Your task to perform on an android device: Do I have any events this weekend? Image 0: 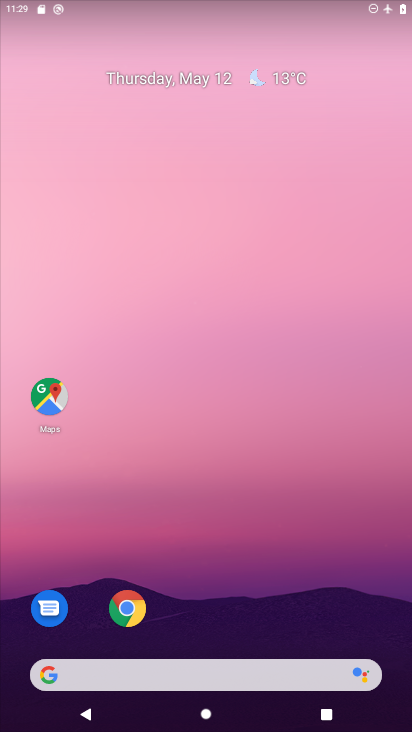
Step 0: drag from (241, 614) to (277, 56)
Your task to perform on an android device: Do I have any events this weekend? Image 1: 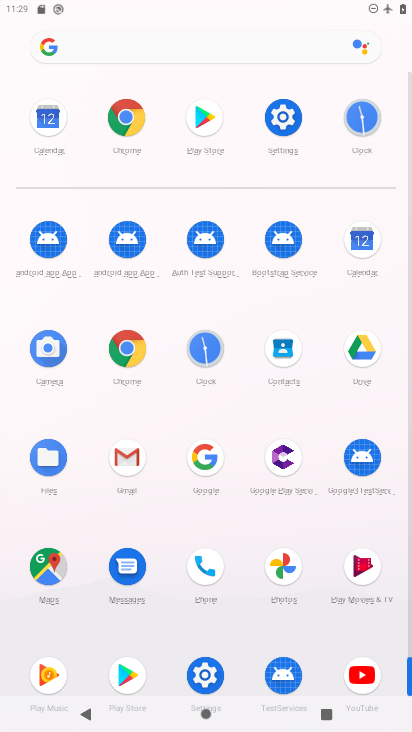
Step 1: click (363, 239)
Your task to perform on an android device: Do I have any events this weekend? Image 2: 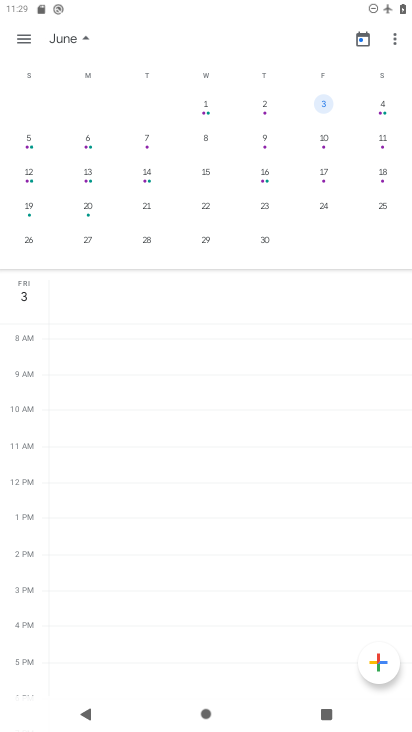
Step 2: drag from (15, 257) to (95, 244)
Your task to perform on an android device: Do I have any events this weekend? Image 3: 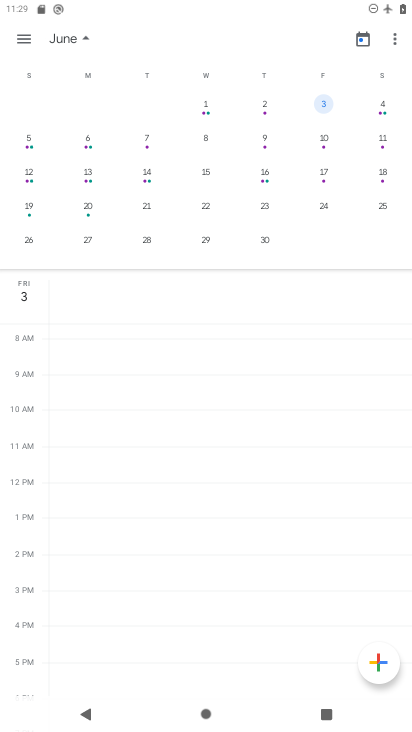
Step 3: drag from (49, 250) to (385, 217)
Your task to perform on an android device: Do I have any events this weekend? Image 4: 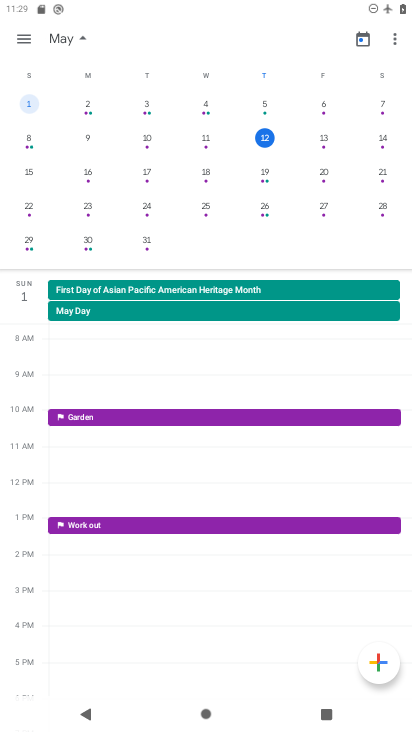
Step 4: click (266, 171)
Your task to perform on an android device: Do I have any events this weekend? Image 5: 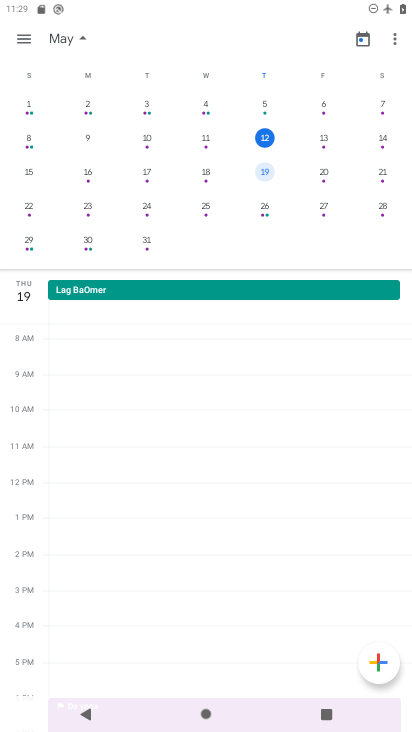
Step 5: task complete